Your task to perform on an android device: Go to Reddit.com Image 0: 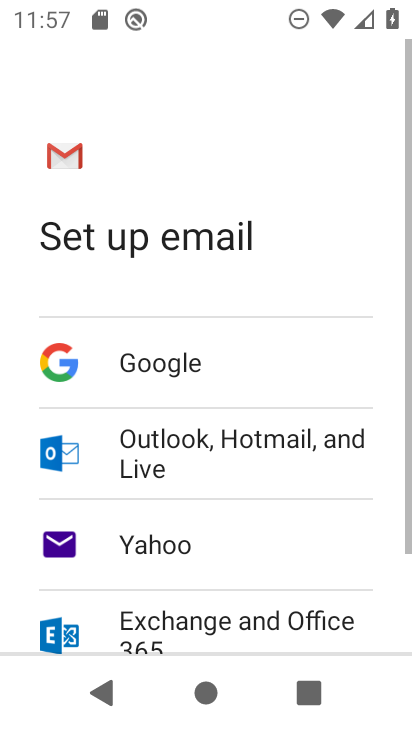
Step 0: press home button
Your task to perform on an android device: Go to Reddit.com Image 1: 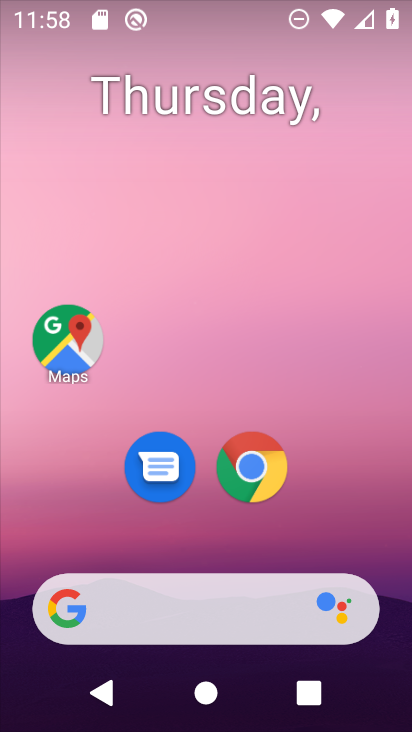
Step 1: click (256, 470)
Your task to perform on an android device: Go to Reddit.com Image 2: 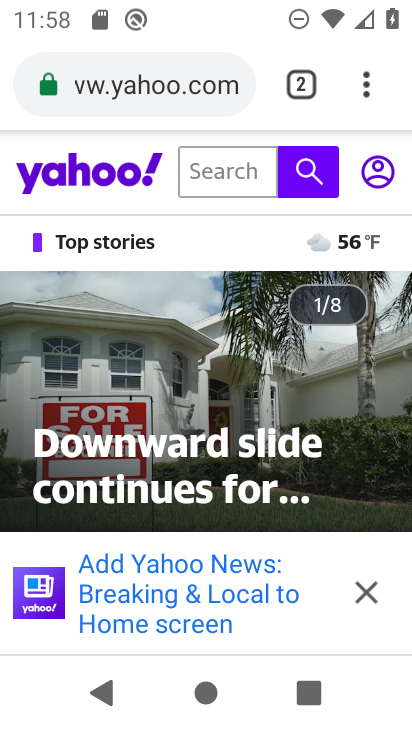
Step 2: click (110, 90)
Your task to perform on an android device: Go to Reddit.com Image 3: 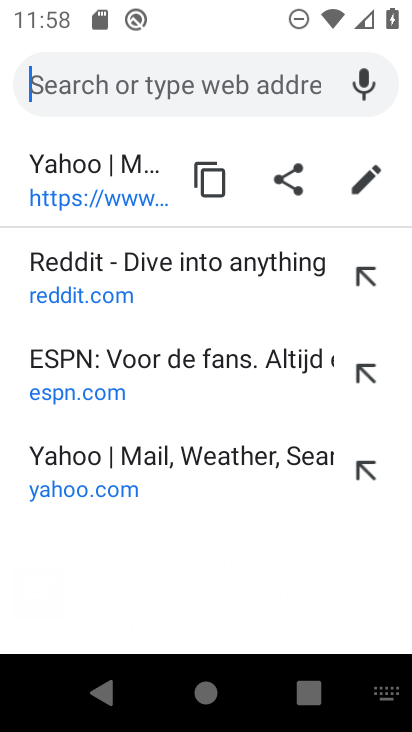
Step 3: click (99, 289)
Your task to perform on an android device: Go to Reddit.com Image 4: 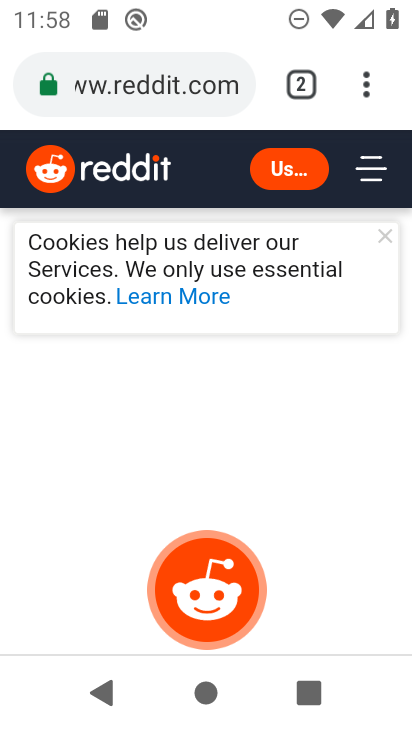
Step 4: task complete